Your task to perform on an android device: What's the weather going to be tomorrow? Image 0: 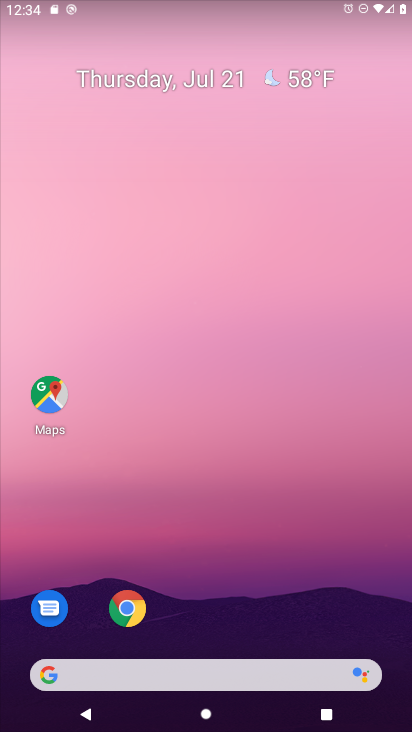
Step 0: click (50, 674)
Your task to perform on an android device: What's the weather going to be tomorrow? Image 1: 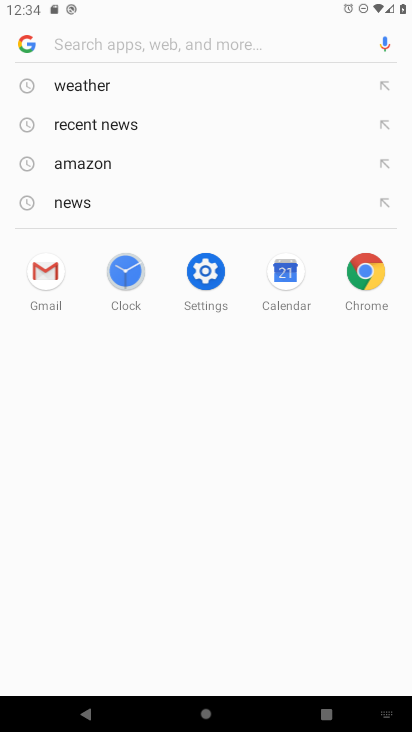
Step 1: type "weather going to be tomorrow?"
Your task to perform on an android device: What's the weather going to be tomorrow? Image 2: 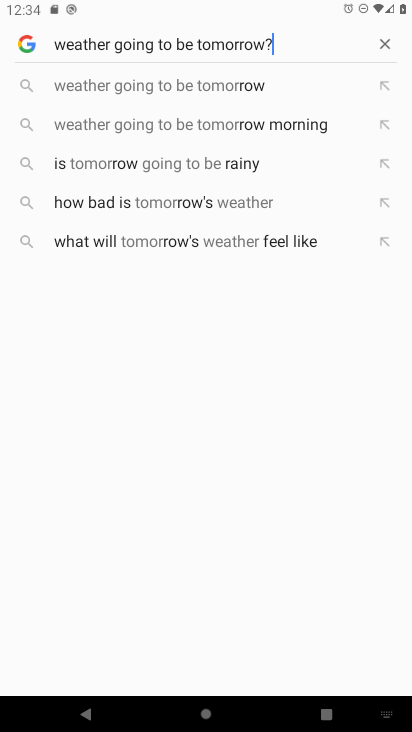
Step 2: press enter
Your task to perform on an android device: What's the weather going to be tomorrow? Image 3: 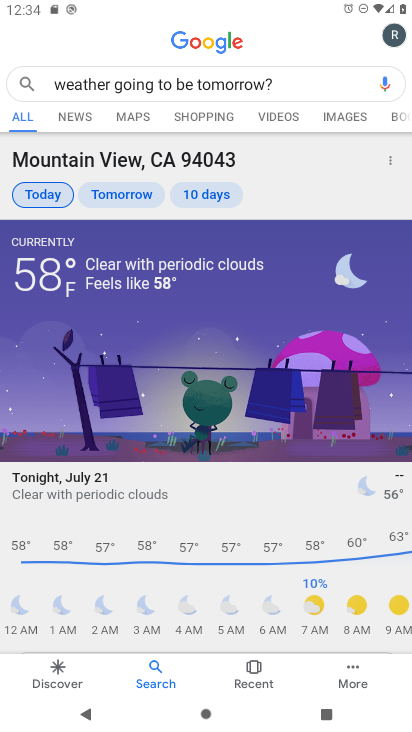
Step 3: task complete